Your task to perform on an android device: Open battery settings Image 0: 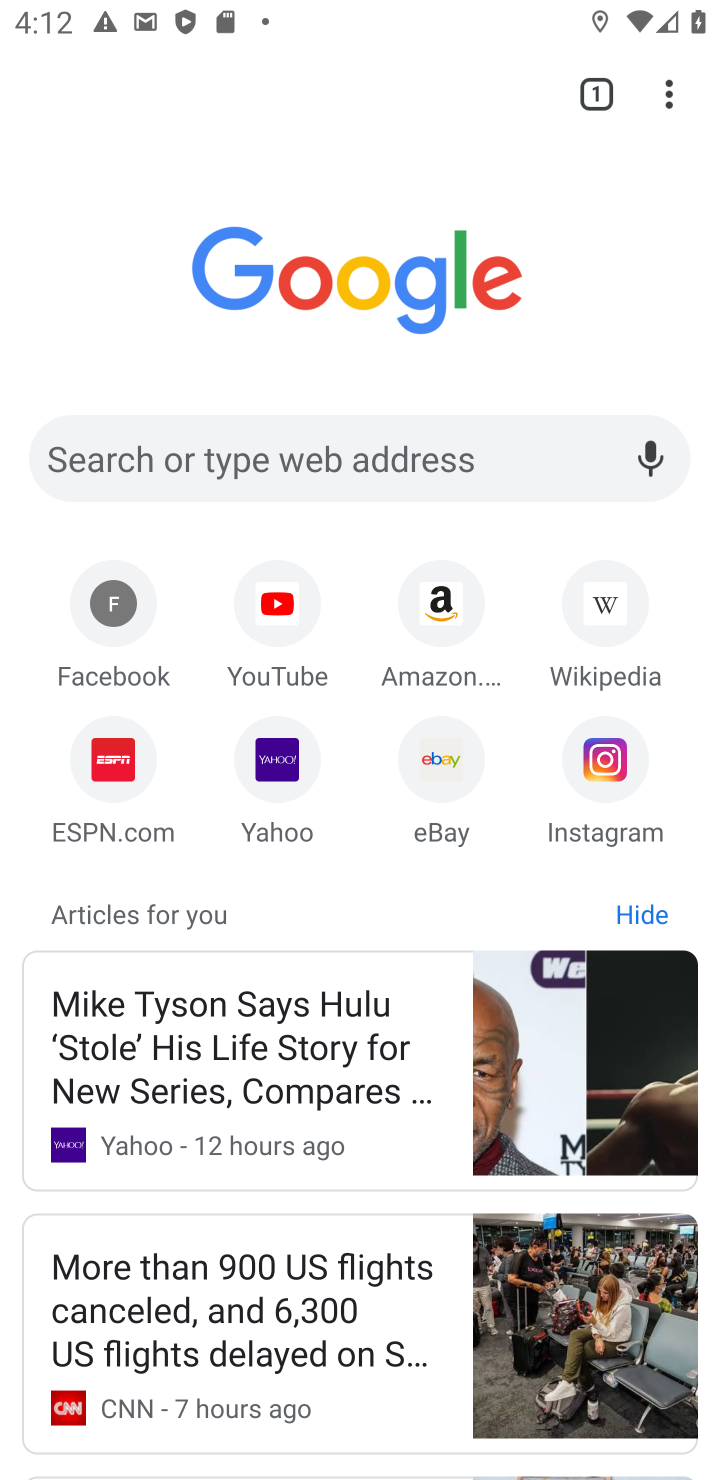
Step 0: press home button
Your task to perform on an android device: Open battery settings Image 1: 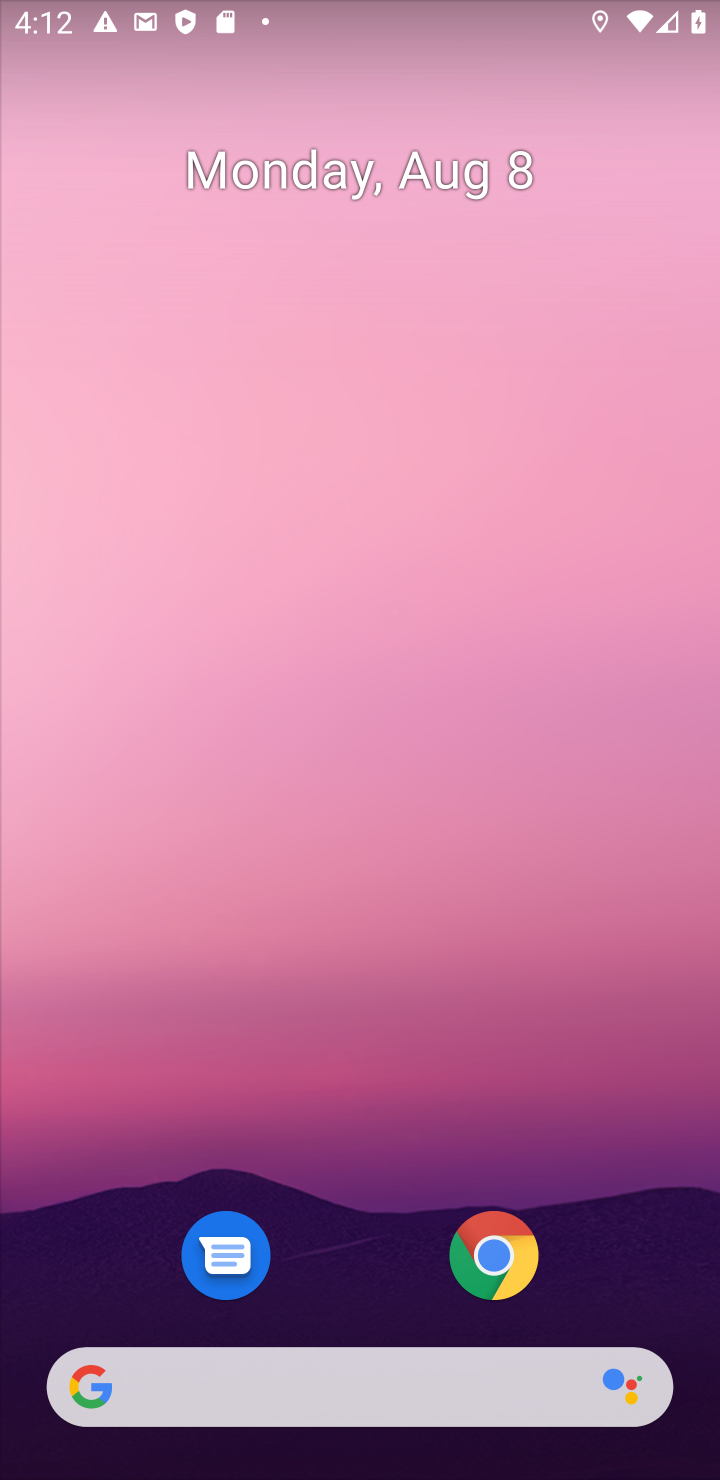
Step 1: drag from (326, 1369) to (568, 344)
Your task to perform on an android device: Open battery settings Image 2: 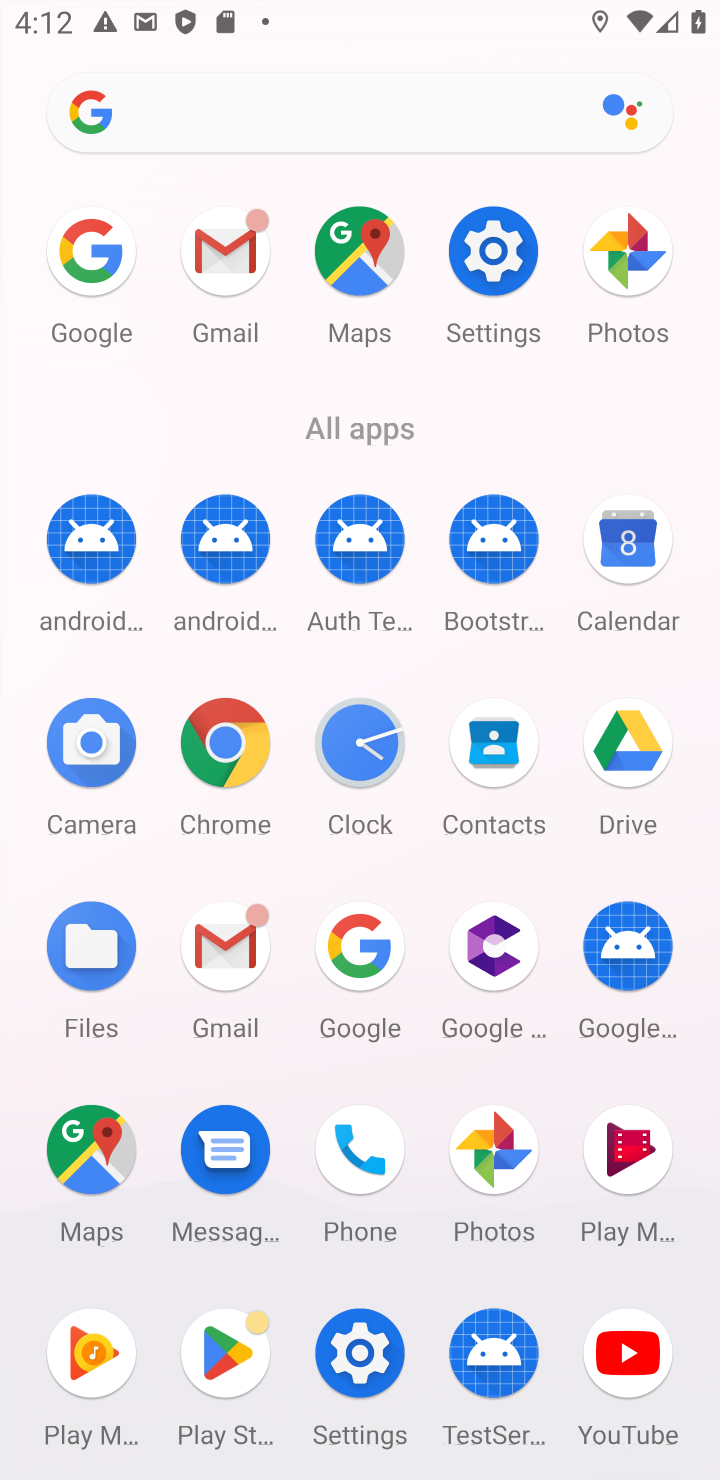
Step 2: click (491, 253)
Your task to perform on an android device: Open battery settings Image 3: 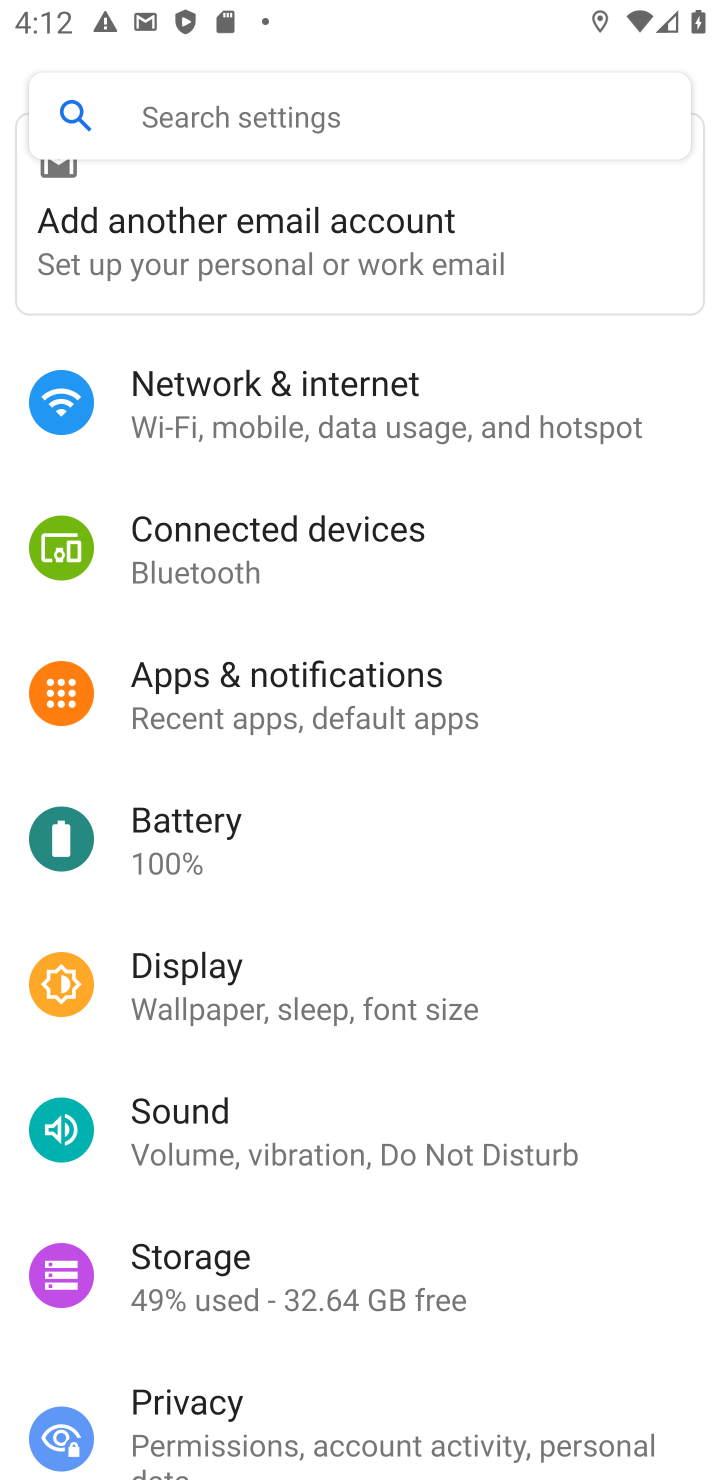
Step 3: click (202, 858)
Your task to perform on an android device: Open battery settings Image 4: 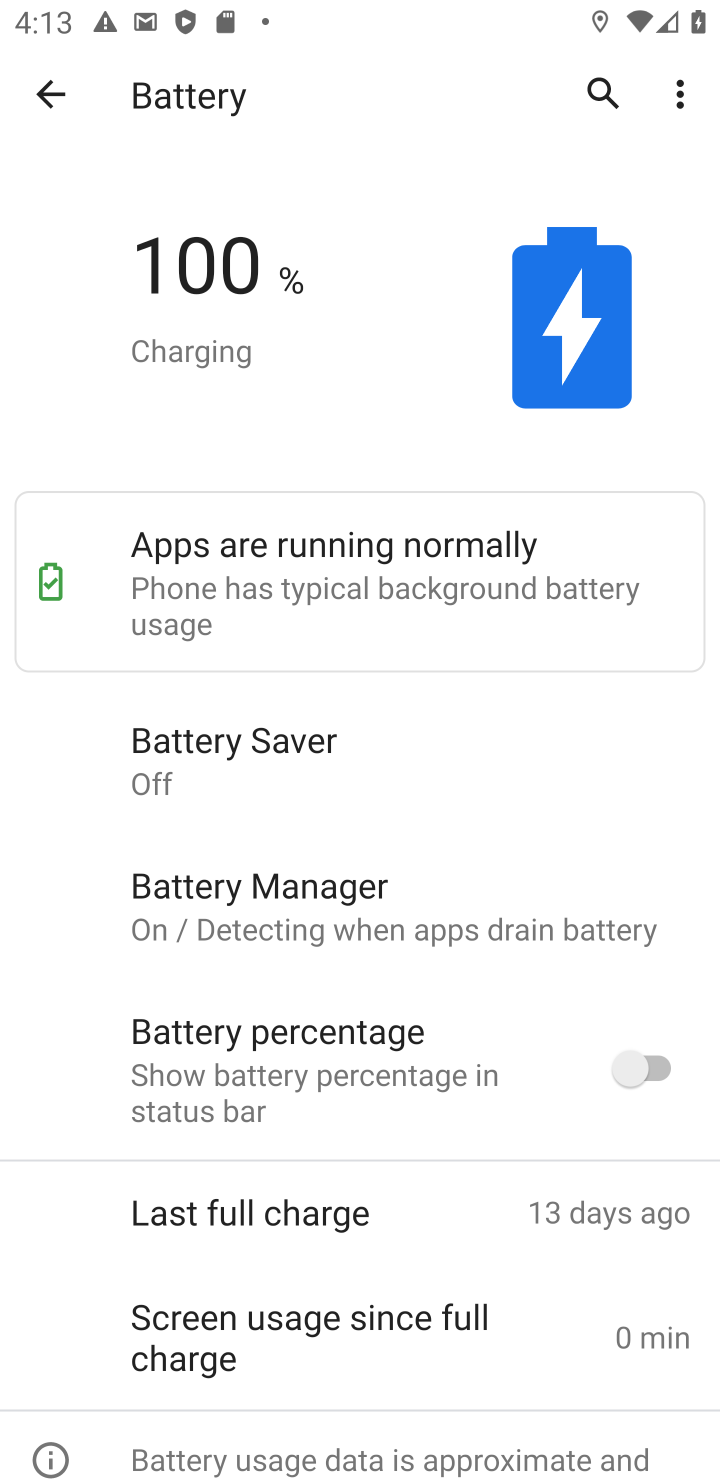
Step 4: task complete